Your task to perform on an android device: Open the calendar app, open the side menu, and click the "Day" option Image 0: 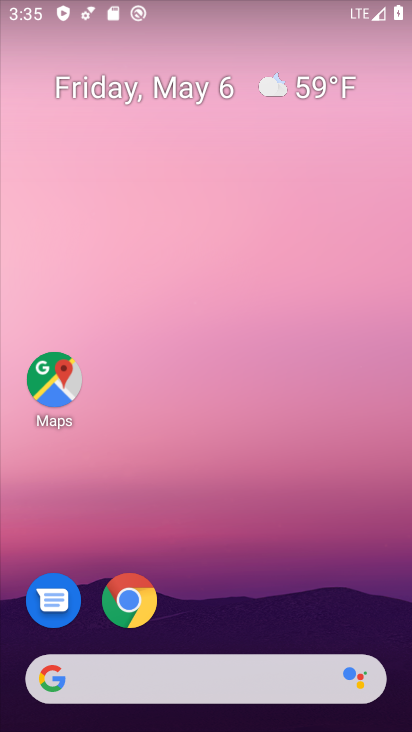
Step 0: drag from (230, 608) to (275, 203)
Your task to perform on an android device: Open the calendar app, open the side menu, and click the "Day" option Image 1: 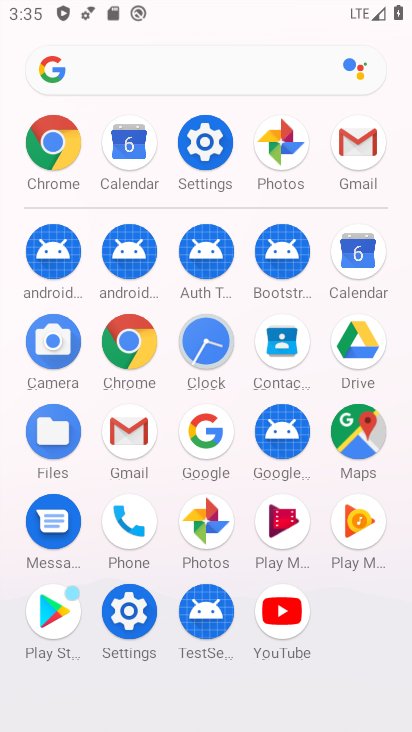
Step 1: click (366, 266)
Your task to perform on an android device: Open the calendar app, open the side menu, and click the "Day" option Image 2: 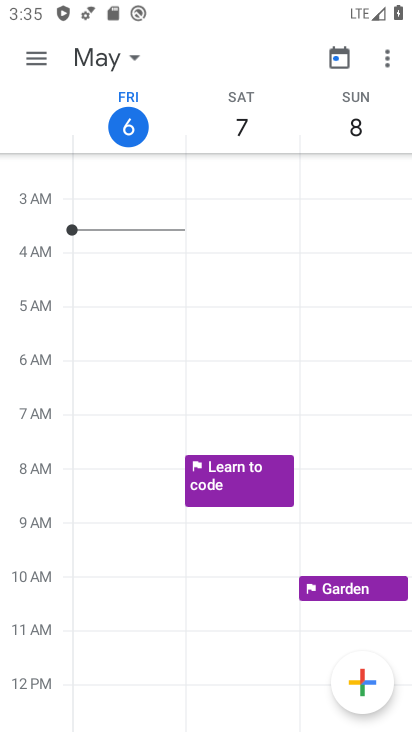
Step 2: click (39, 59)
Your task to perform on an android device: Open the calendar app, open the side menu, and click the "Day" option Image 3: 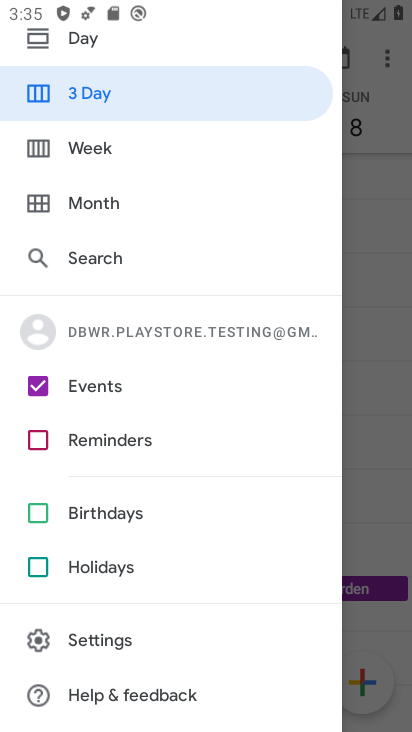
Step 3: click (99, 46)
Your task to perform on an android device: Open the calendar app, open the side menu, and click the "Day" option Image 4: 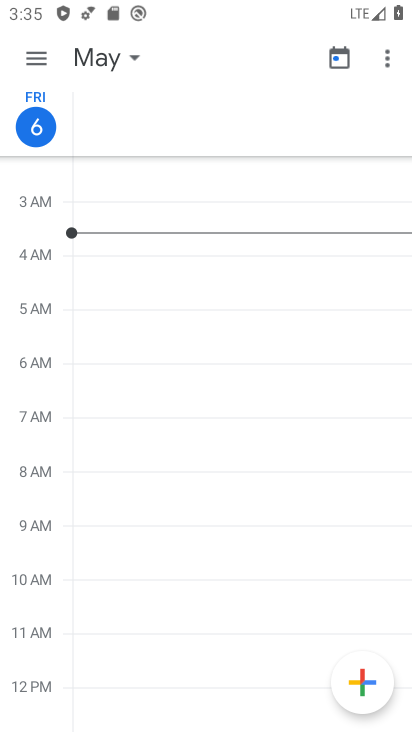
Step 4: task complete